Your task to perform on an android device: Go to Yahoo.com Image 0: 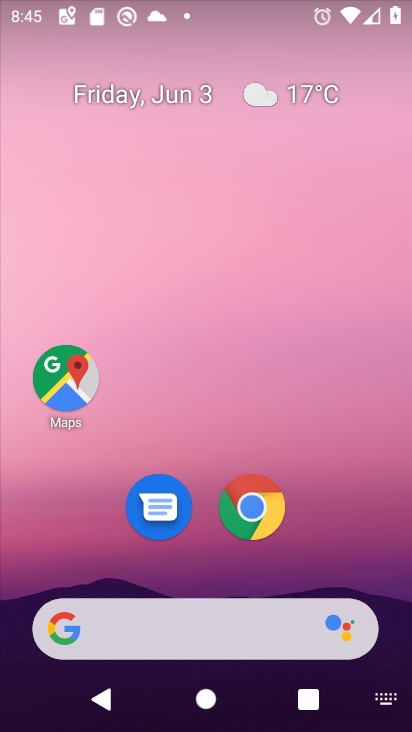
Step 0: press home button
Your task to perform on an android device: Go to Yahoo.com Image 1: 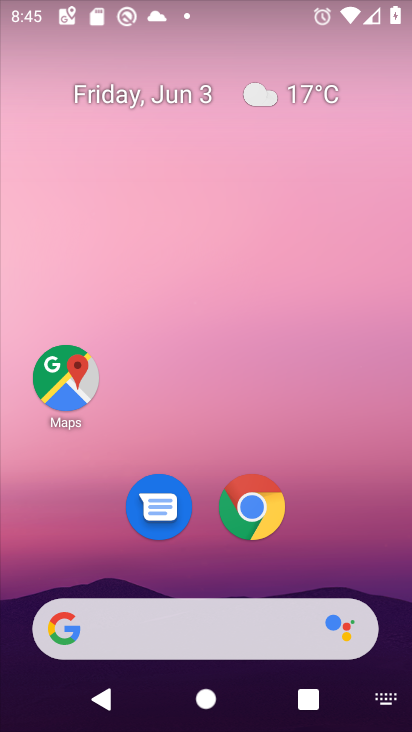
Step 1: click (271, 492)
Your task to perform on an android device: Go to Yahoo.com Image 2: 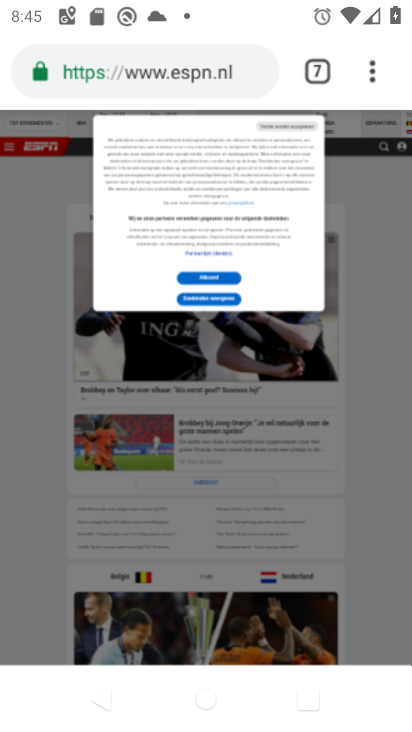
Step 2: click (312, 67)
Your task to perform on an android device: Go to Yahoo.com Image 3: 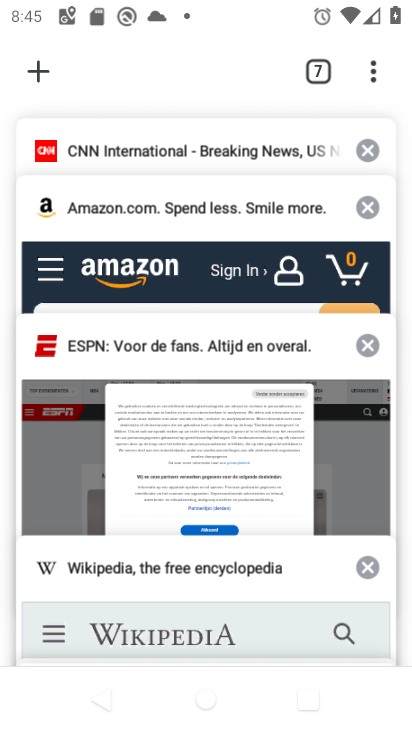
Step 3: drag from (190, 146) to (177, 607)
Your task to perform on an android device: Go to Yahoo.com Image 4: 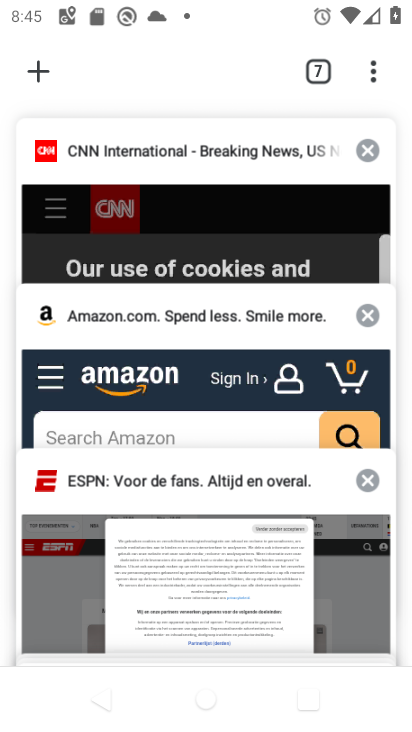
Step 4: drag from (204, 215) to (134, 527)
Your task to perform on an android device: Go to Yahoo.com Image 5: 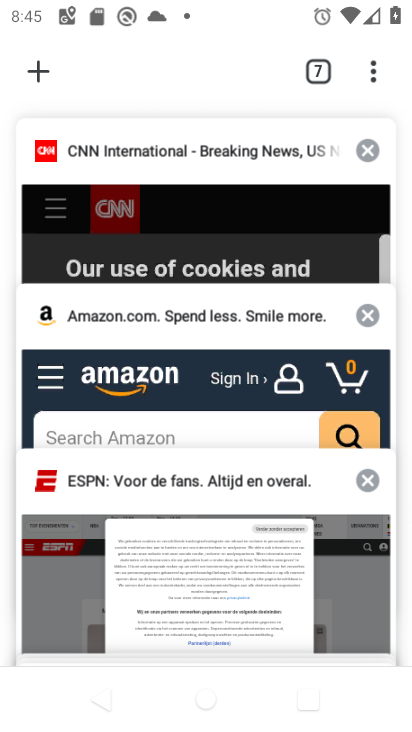
Step 5: drag from (153, 461) to (175, 35)
Your task to perform on an android device: Go to Yahoo.com Image 6: 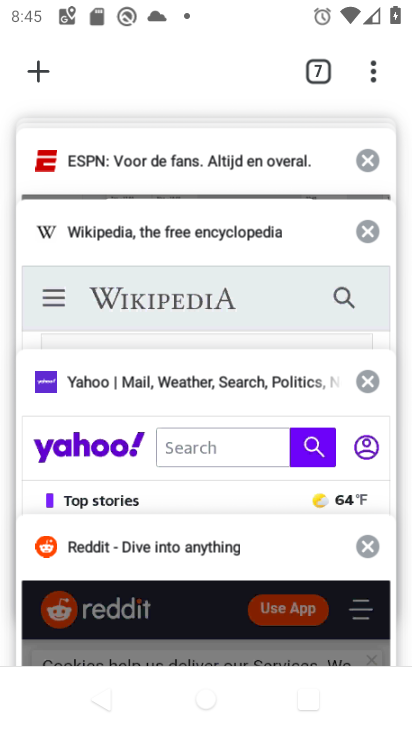
Step 6: click (66, 483)
Your task to perform on an android device: Go to Yahoo.com Image 7: 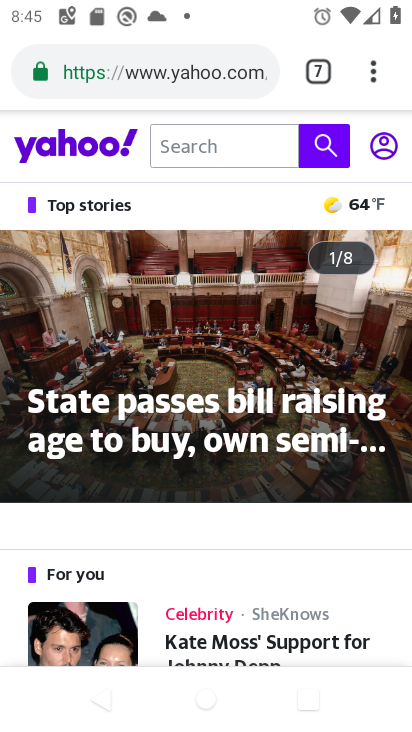
Step 7: task complete